Your task to perform on an android device: turn off picture-in-picture Image 0: 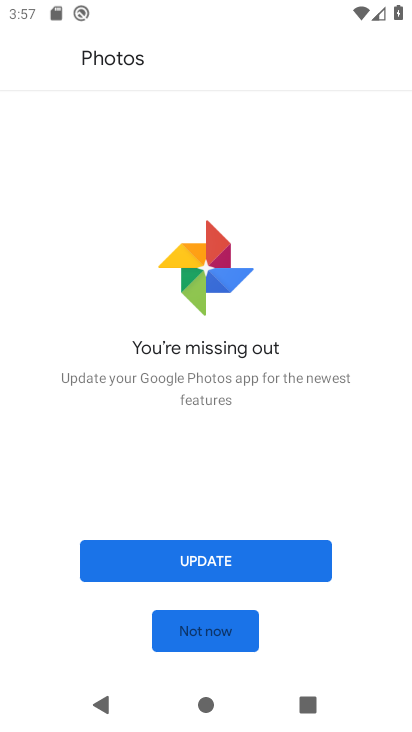
Step 0: press home button
Your task to perform on an android device: turn off picture-in-picture Image 1: 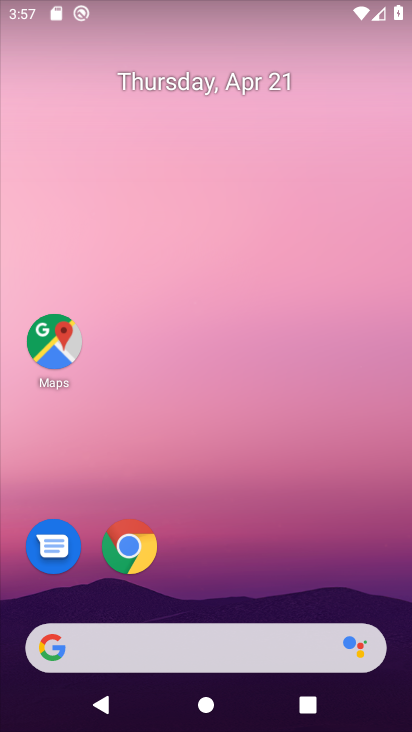
Step 1: click (125, 554)
Your task to perform on an android device: turn off picture-in-picture Image 2: 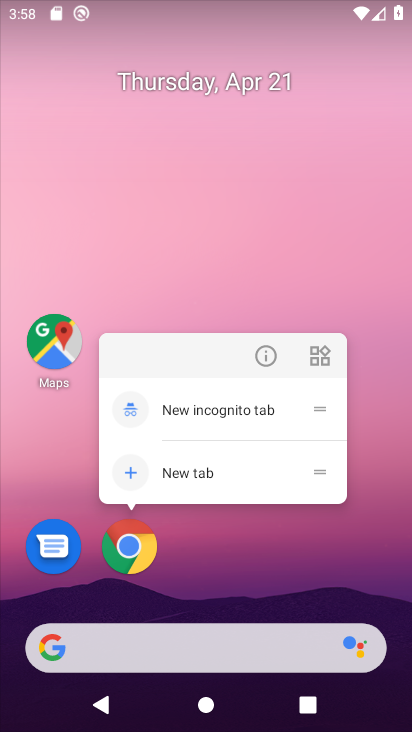
Step 2: click (269, 365)
Your task to perform on an android device: turn off picture-in-picture Image 3: 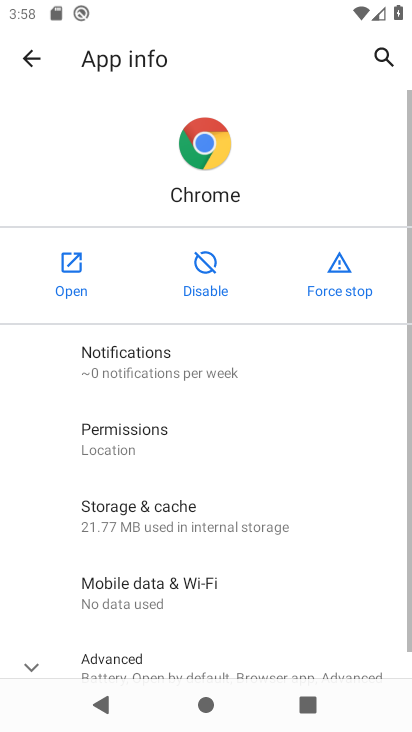
Step 3: drag from (65, 612) to (150, 144)
Your task to perform on an android device: turn off picture-in-picture Image 4: 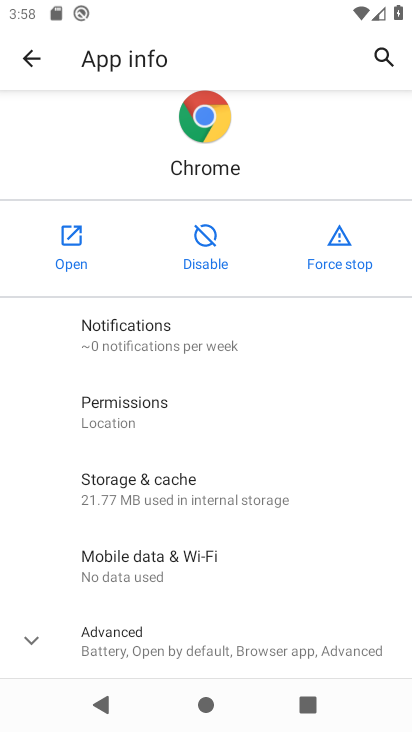
Step 4: drag from (147, 649) to (123, 231)
Your task to perform on an android device: turn off picture-in-picture Image 5: 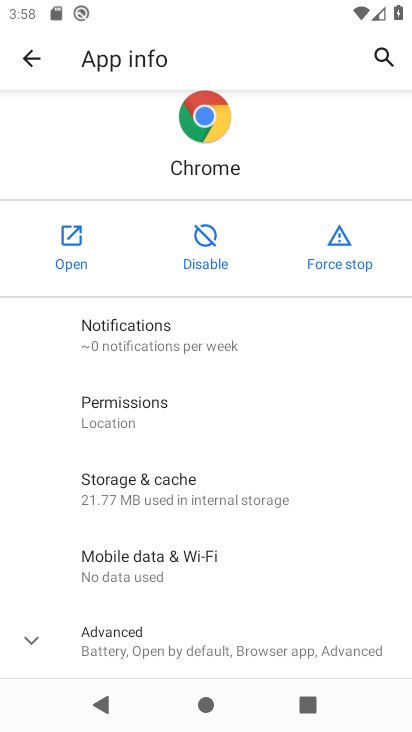
Step 5: click (84, 652)
Your task to perform on an android device: turn off picture-in-picture Image 6: 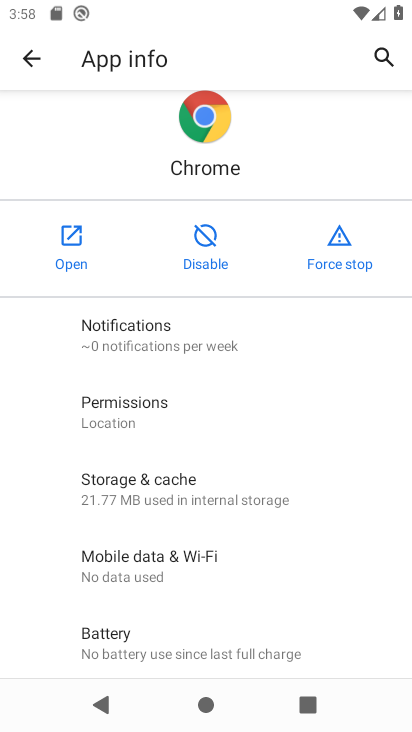
Step 6: drag from (101, 636) to (126, 203)
Your task to perform on an android device: turn off picture-in-picture Image 7: 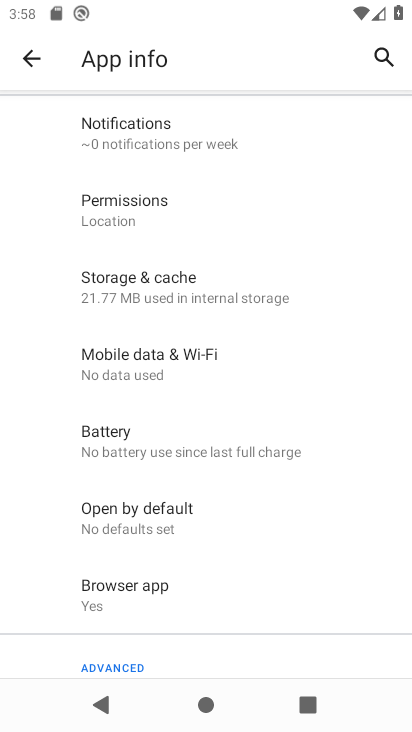
Step 7: drag from (55, 631) to (55, 370)
Your task to perform on an android device: turn off picture-in-picture Image 8: 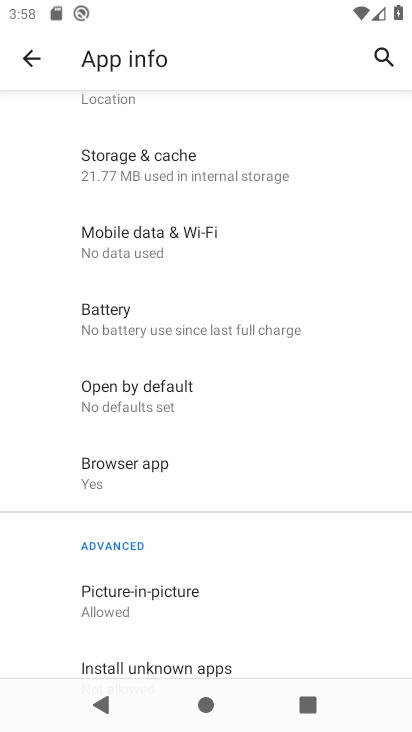
Step 8: click (146, 623)
Your task to perform on an android device: turn off picture-in-picture Image 9: 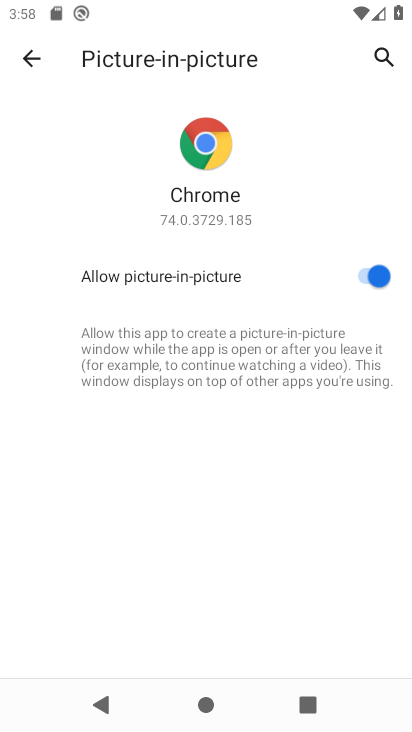
Step 9: click (371, 284)
Your task to perform on an android device: turn off picture-in-picture Image 10: 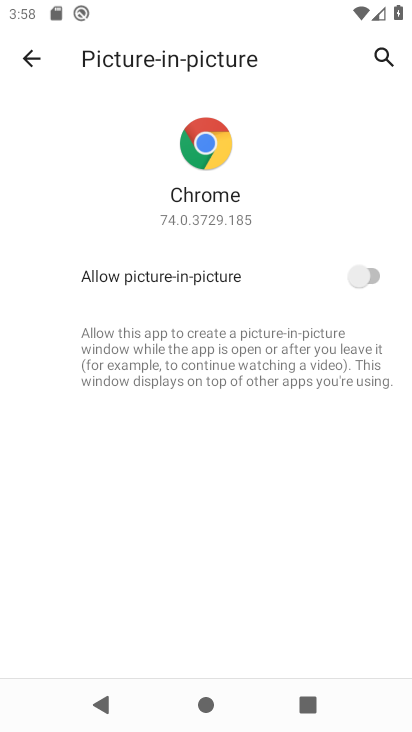
Step 10: task complete